Your task to perform on an android device: change notifications settings Image 0: 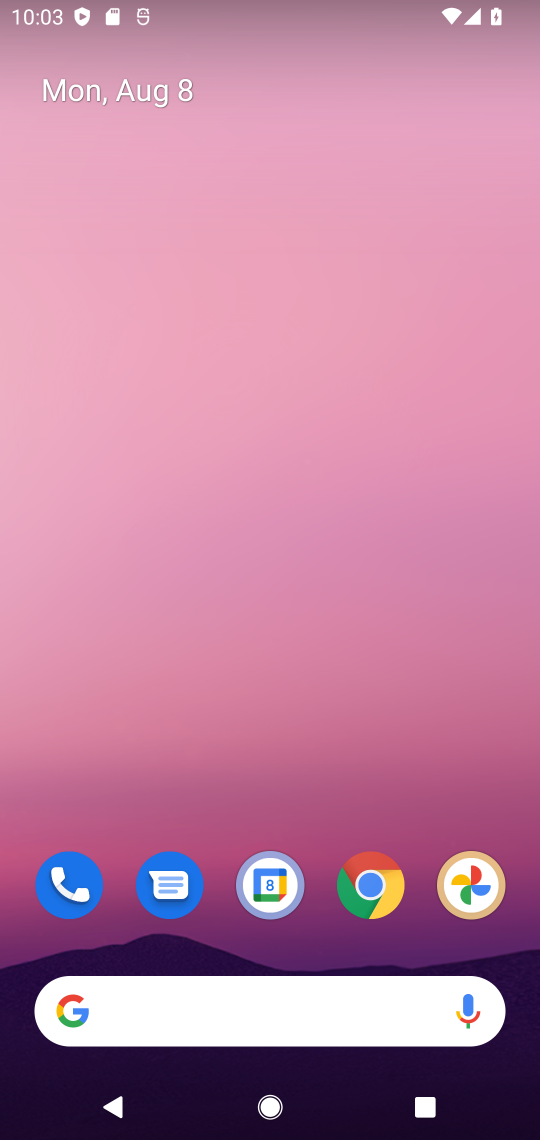
Step 0: drag from (59, 1105) to (119, 457)
Your task to perform on an android device: change notifications settings Image 1: 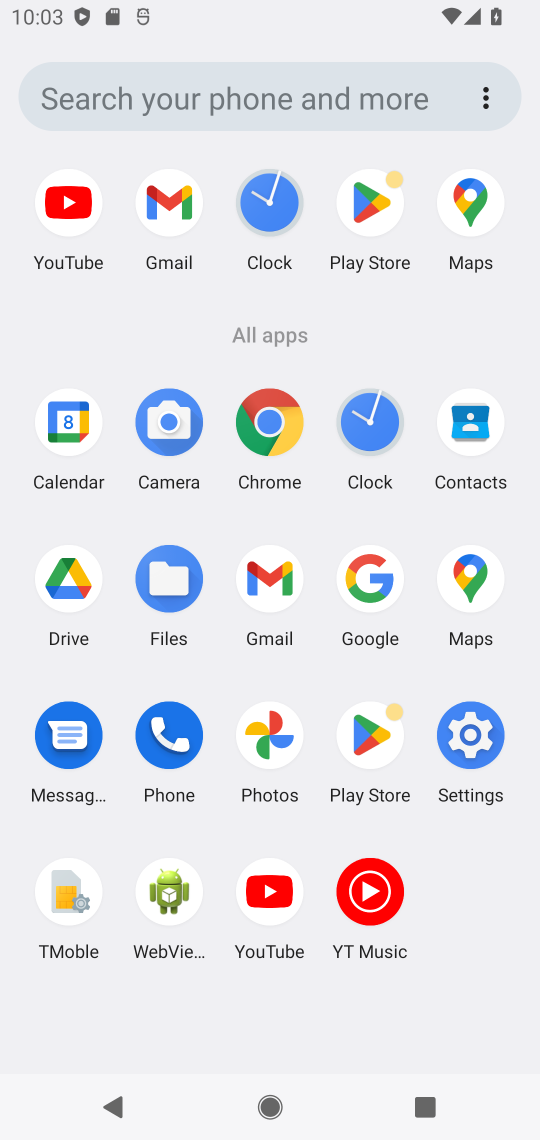
Step 1: click (481, 757)
Your task to perform on an android device: change notifications settings Image 2: 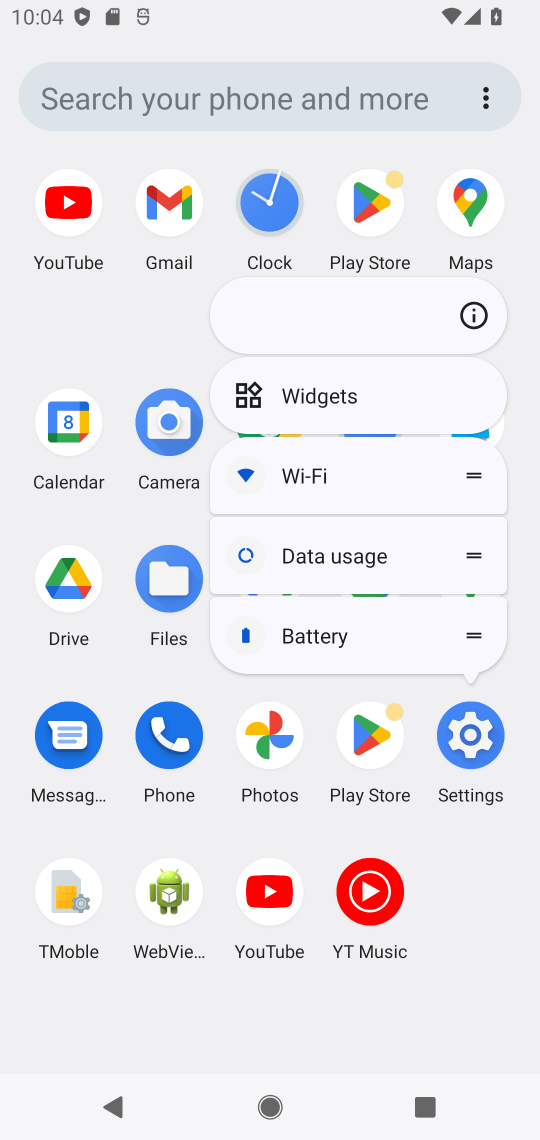
Step 2: click (481, 757)
Your task to perform on an android device: change notifications settings Image 3: 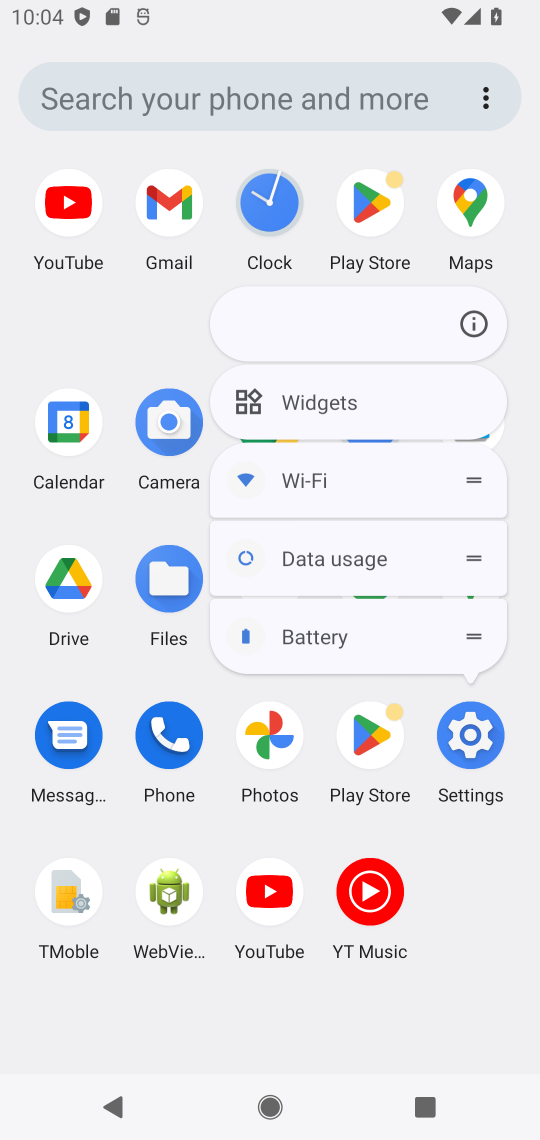
Step 3: click (481, 757)
Your task to perform on an android device: change notifications settings Image 4: 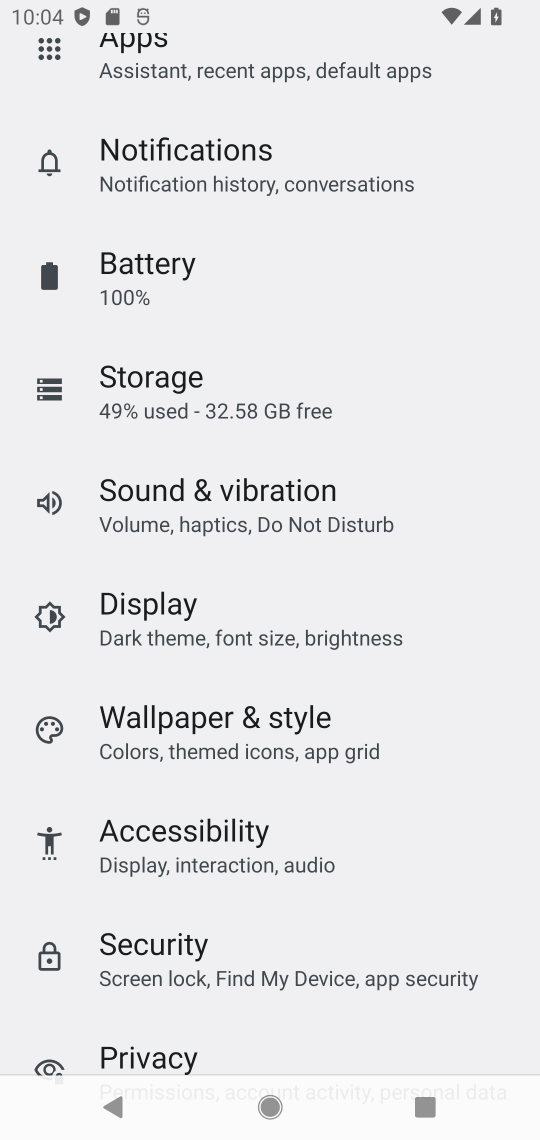
Step 4: click (126, 144)
Your task to perform on an android device: change notifications settings Image 5: 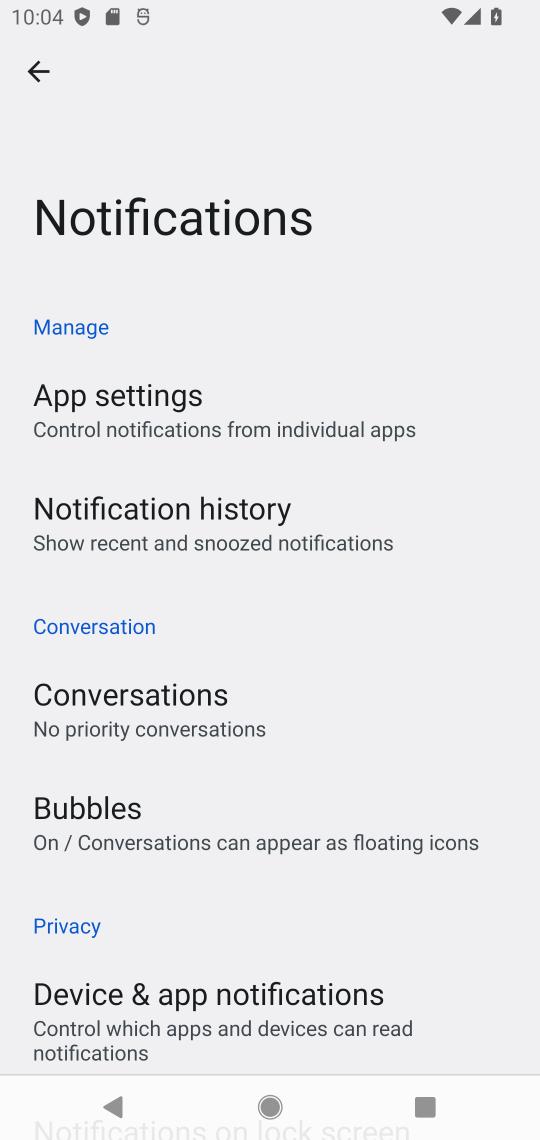
Step 5: task complete